Your task to perform on an android device: change alarm snooze length Image 0: 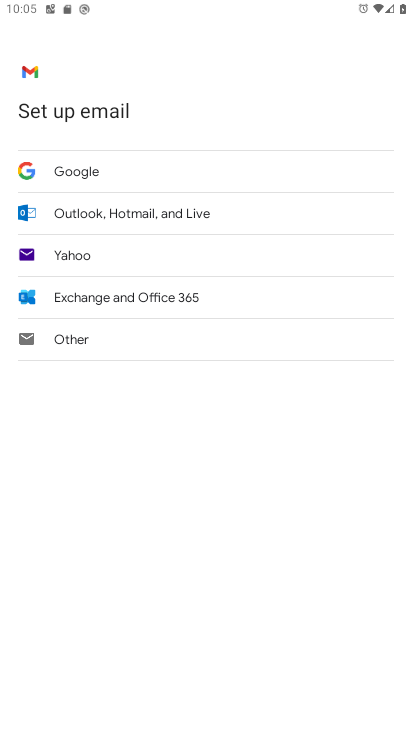
Step 0: press home button
Your task to perform on an android device: change alarm snooze length Image 1: 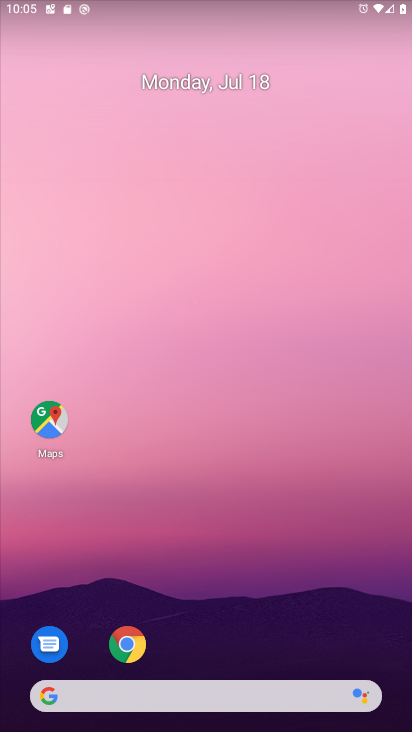
Step 1: drag from (239, 623) to (282, 82)
Your task to perform on an android device: change alarm snooze length Image 2: 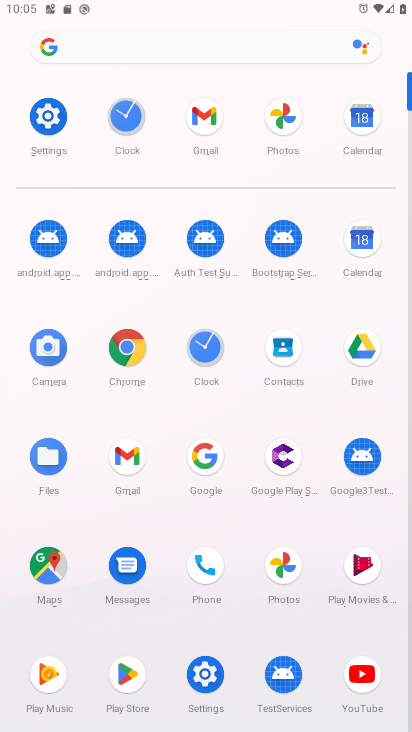
Step 2: click (132, 132)
Your task to perform on an android device: change alarm snooze length Image 3: 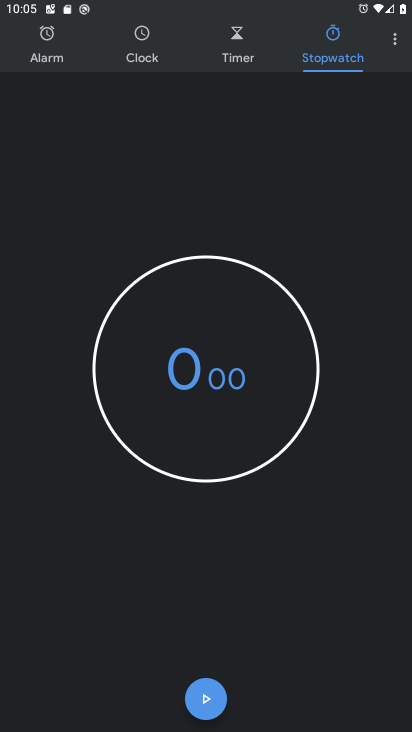
Step 3: click (395, 41)
Your task to perform on an android device: change alarm snooze length Image 4: 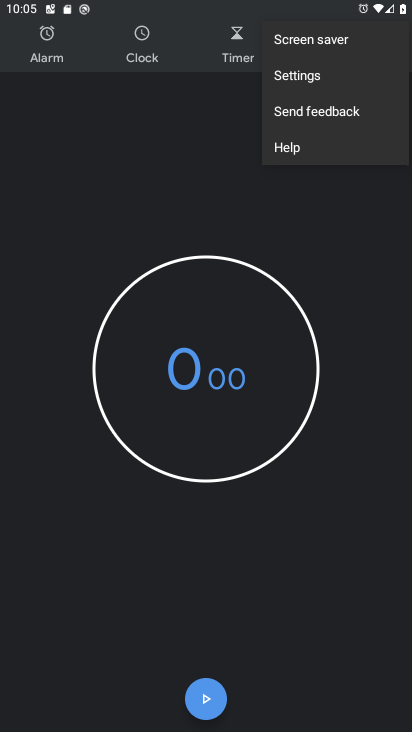
Step 4: click (343, 80)
Your task to perform on an android device: change alarm snooze length Image 5: 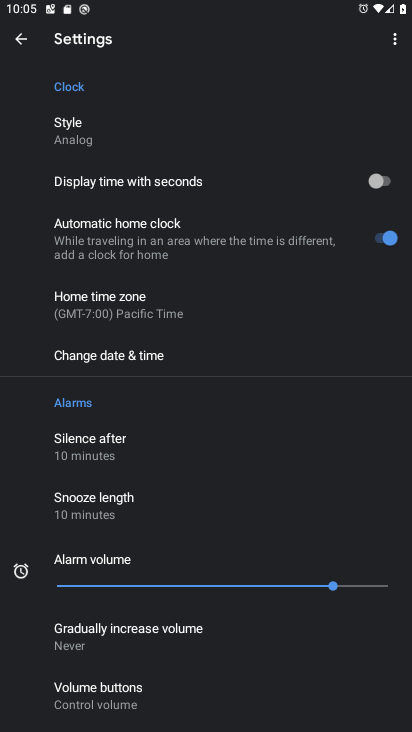
Step 5: click (137, 500)
Your task to perform on an android device: change alarm snooze length Image 6: 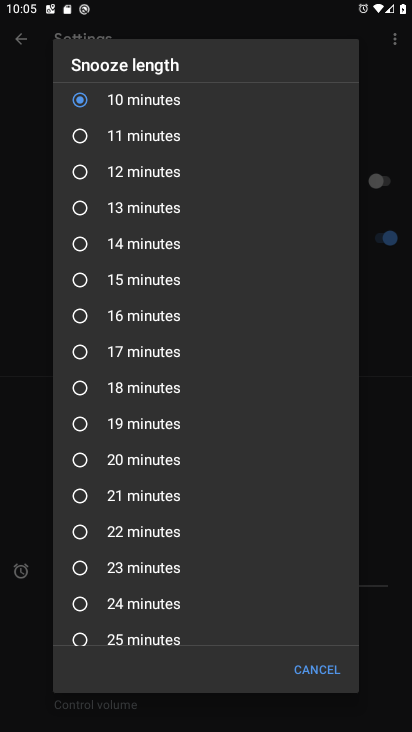
Step 6: click (141, 393)
Your task to perform on an android device: change alarm snooze length Image 7: 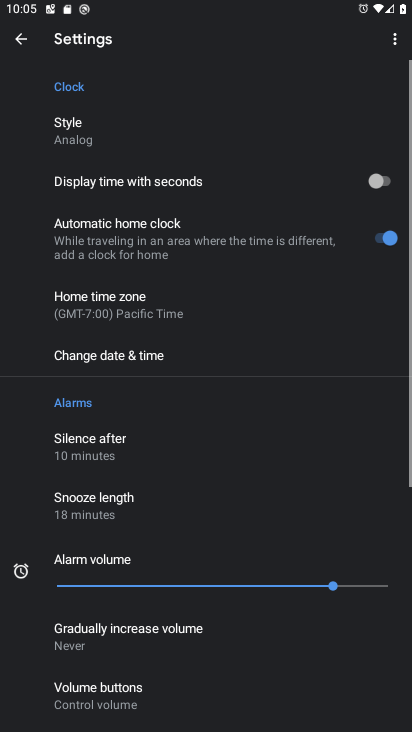
Step 7: task complete